Your task to perform on an android device: Check the weather Image 0: 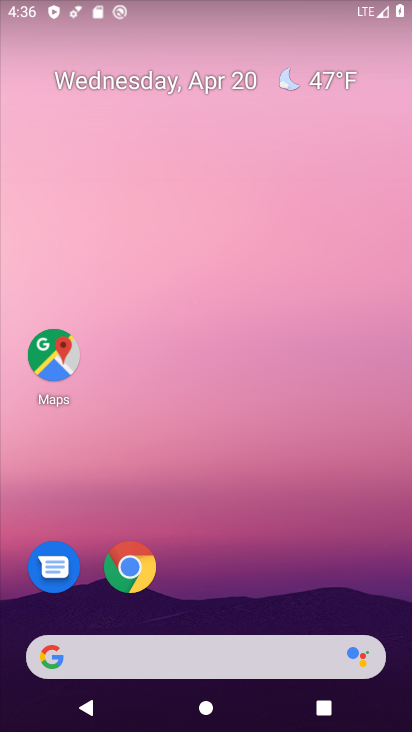
Step 0: drag from (226, 527) to (202, 37)
Your task to perform on an android device: Check the weather Image 1: 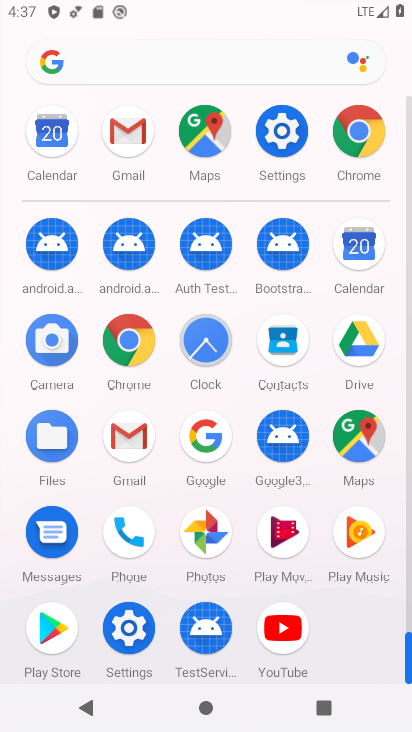
Step 1: click (182, 62)
Your task to perform on an android device: Check the weather Image 2: 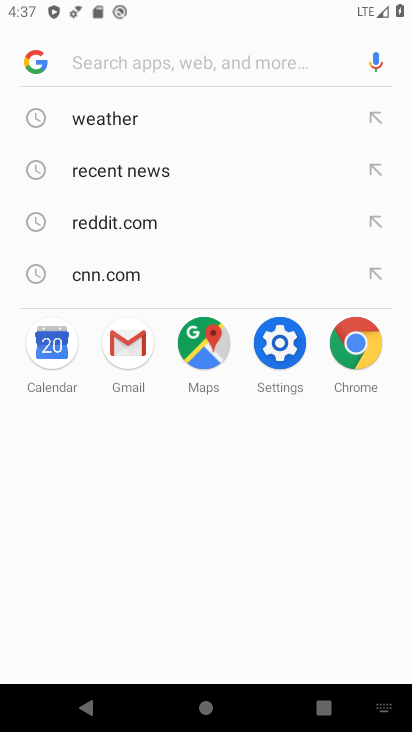
Step 2: click (136, 118)
Your task to perform on an android device: Check the weather Image 3: 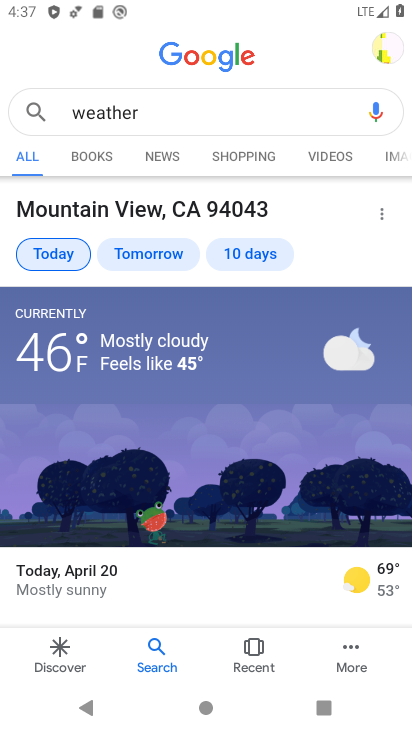
Step 3: task complete